Your task to perform on an android device: check battery use Image 0: 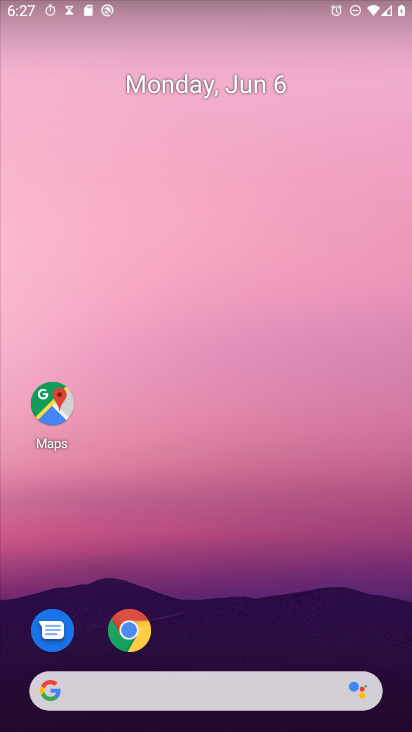
Step 0: drag from (293, 642) to (247, 20)
Your task to perform on an android device: check battery use Image 1: 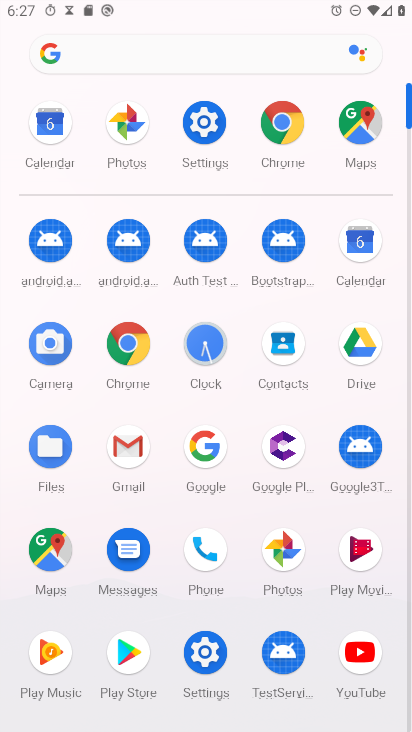
Step 1: click (219, 133)
Your task to perform on an android device: check battery use Image 2: 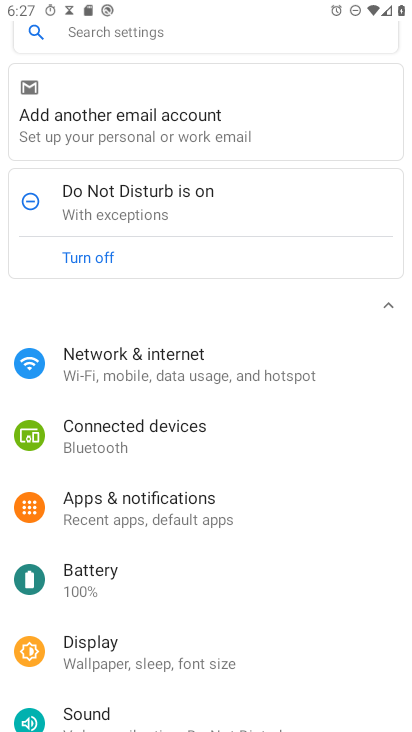
Step 2: click (157, 588)
Your task to perform on an android device: check battery use Image 3: 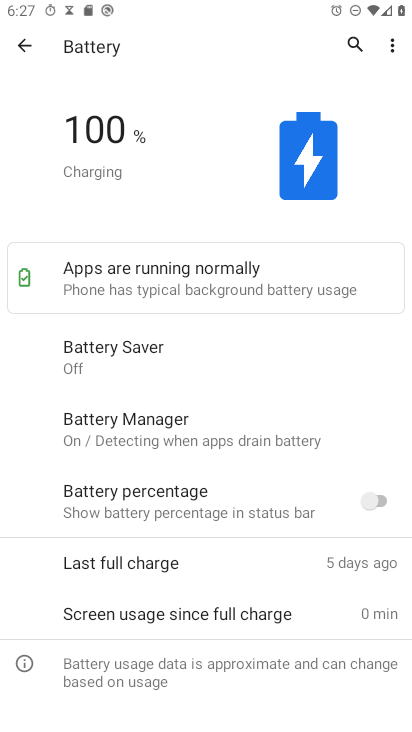
Step 3: click (389, 45)
Your task to perform on an android device: check battery use Image 4: 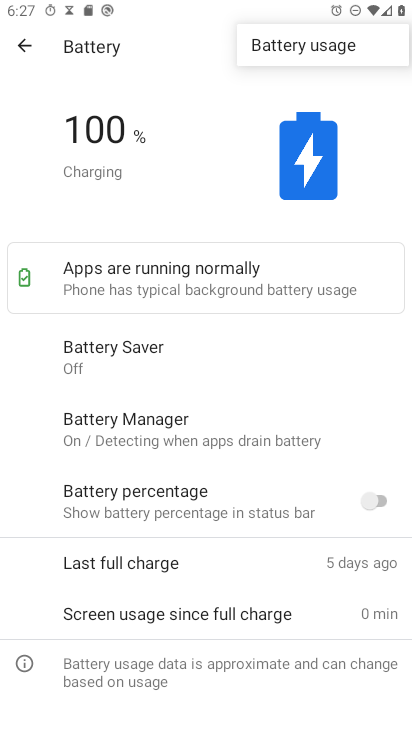
Step 4: click (271, 39)
Your task to perform on an android device: check battery use Image 5: 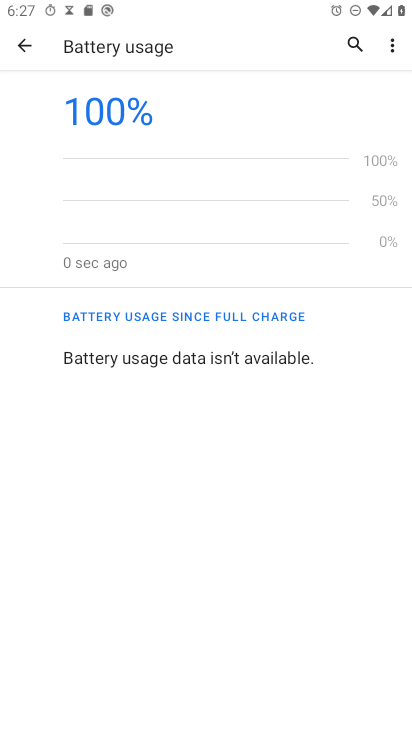
Step 5: task complete